Your task to perform on an android device: When is my next appointment? Image 0: 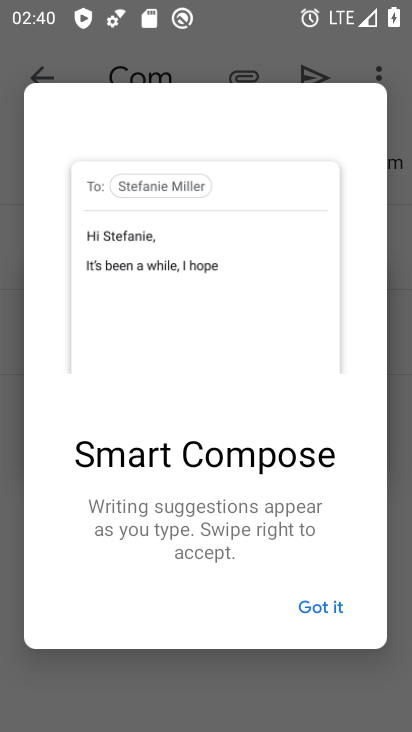
Step 0: press home button
Your task to perform on an android device: When is my next appointment? Image 1: 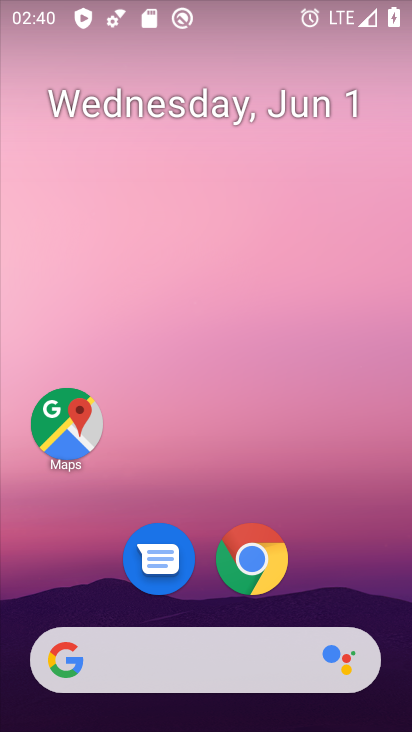
Step 1: drag from (336, 579) to (340, 158)
Your task to perform on an android device: When is my next appointment? Image 2: 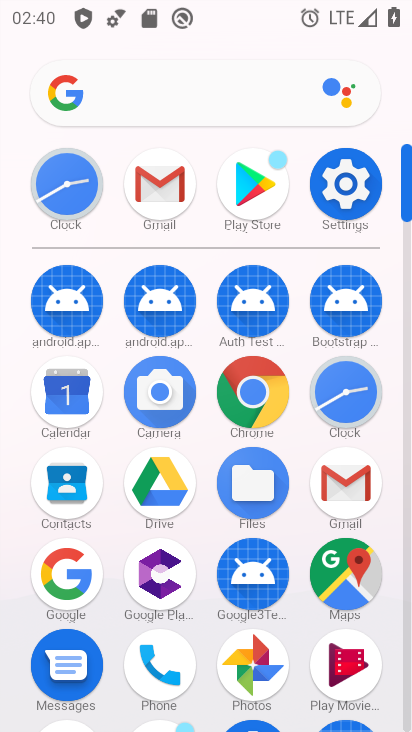
Step 2: click (66, 408)
Your task to perform on an android device: When is my next appointment? Image 3: 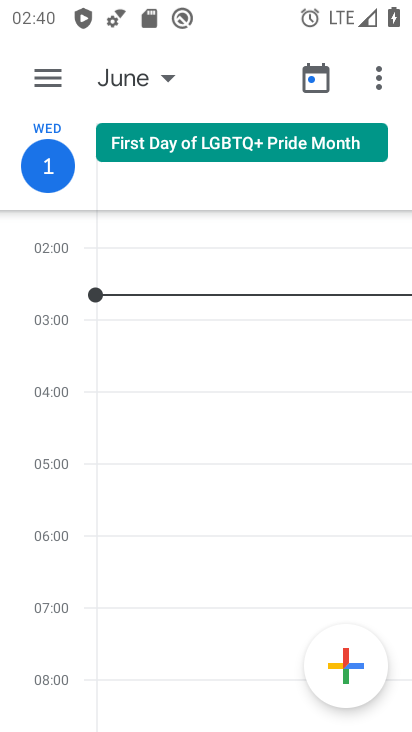
Step 3: click (37, 71)
Your task to perform on an android device: When is my next appointment? Image 4: 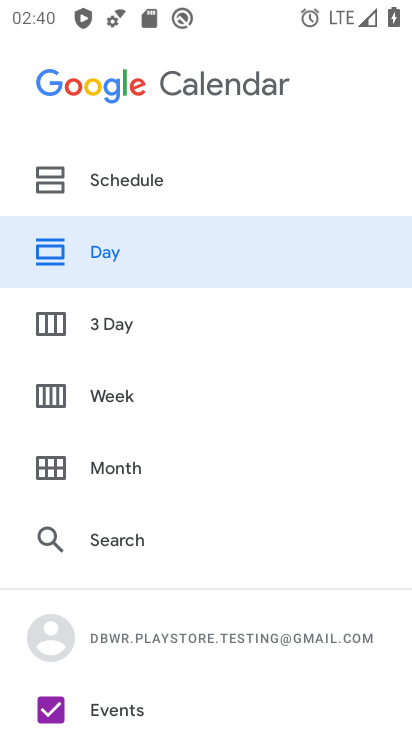
Step 4: click (145, 189)
Your task to perform on an android device: When is my next appointment? Image 5: 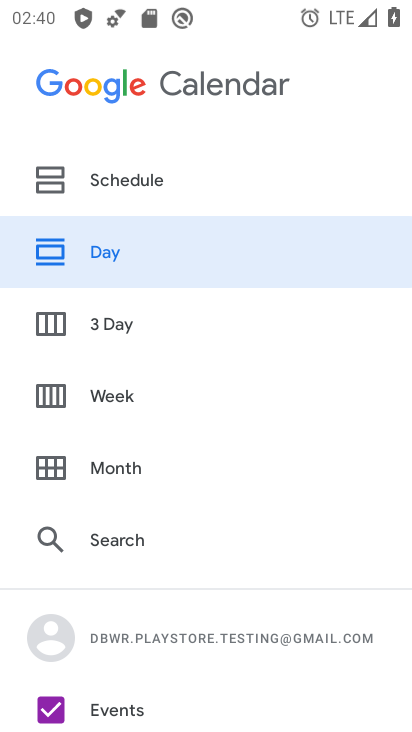
Step 5: click (145, 182)
Your task to perform on an android device: When is my next appointment? Image 6: 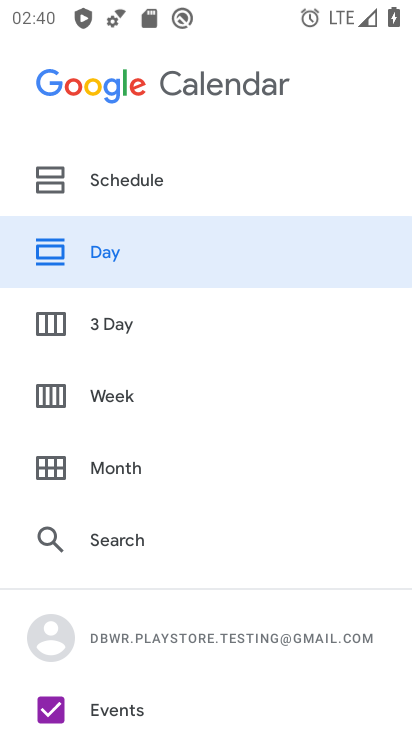
Step 6: click (145, 182)
Your task to perform on an android device: When is my next appointment? Image 7: 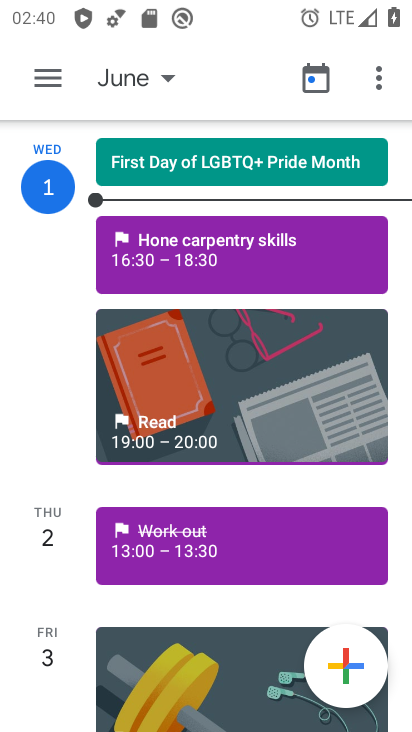
Step 7: task complete